Your task to perform on an android device: check data usage Image 0: 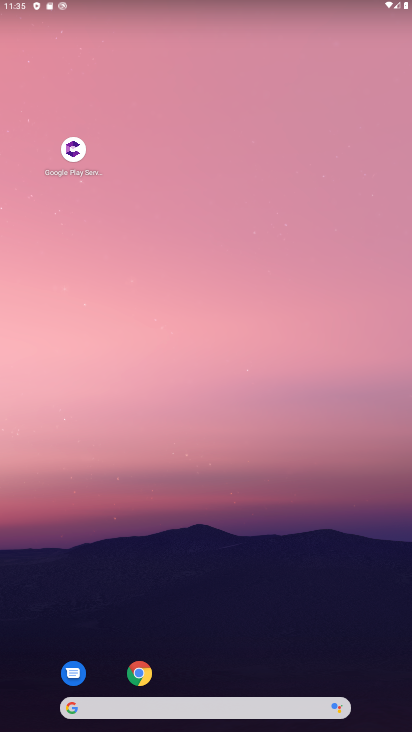
Step 0: drag from (277, 495) to (315, 229)
Your task to perform on an android device: check data usage Image 1: 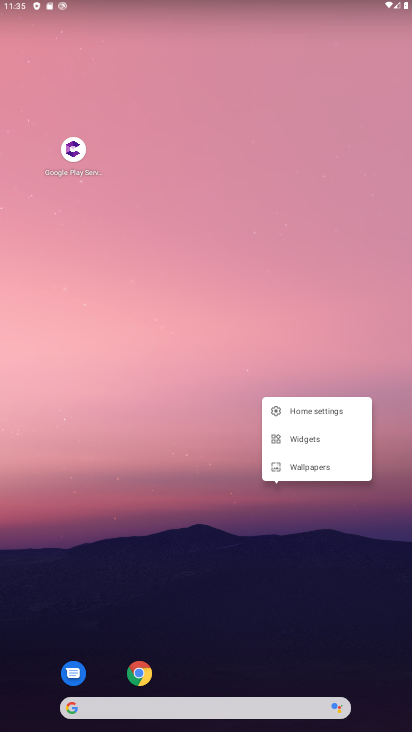
Step 1: click (167, 435)
Your task to perform on an android device: check data usage Image 2: 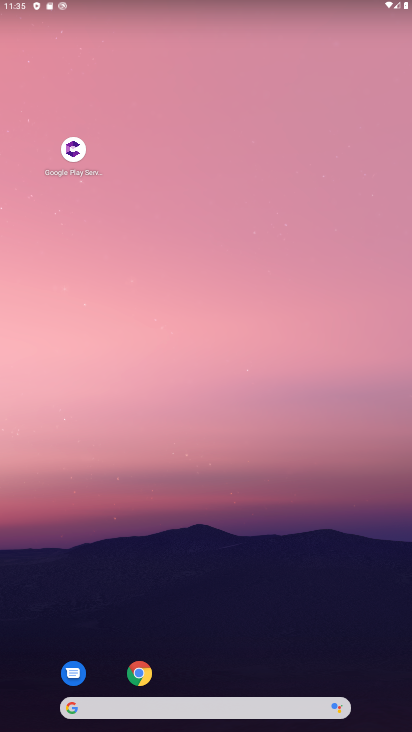
Step 2: drag from (167, 435) to (198, 84)
Your task to perform on an android device: check data usage Image 3: 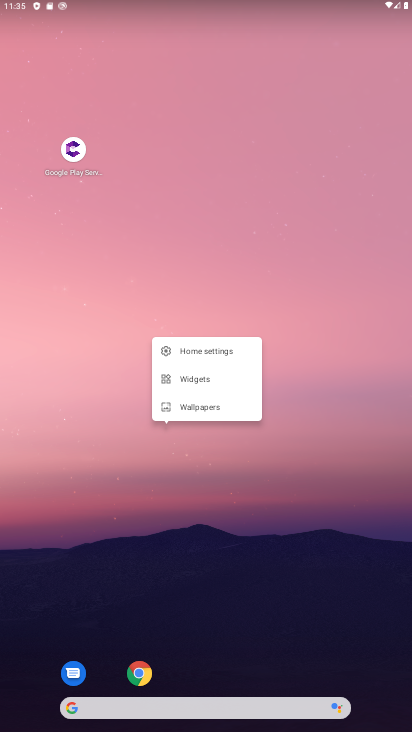
Step 3: click (275, 585)
Your task to perform on an android device: check data usage Image 4: 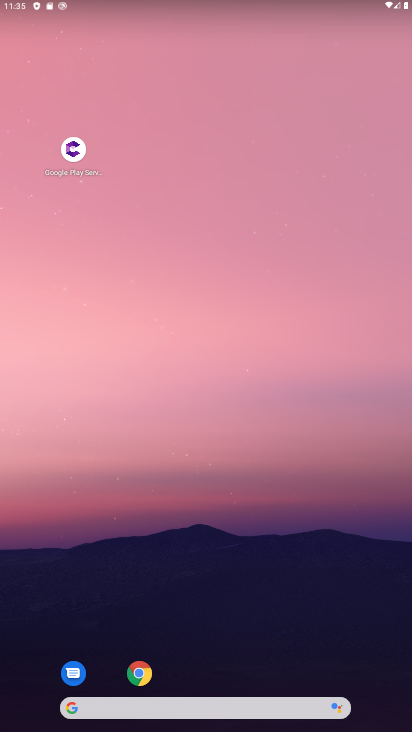
Step 4: click (272, 518)
Your task to perform on an android device: check data usage Image 5: 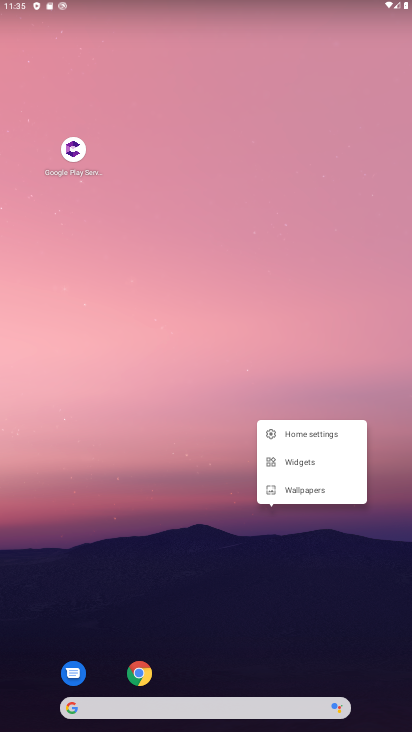
Step 5: click (243, 538)
Your task to perform on an android device: check data usage Image 6: 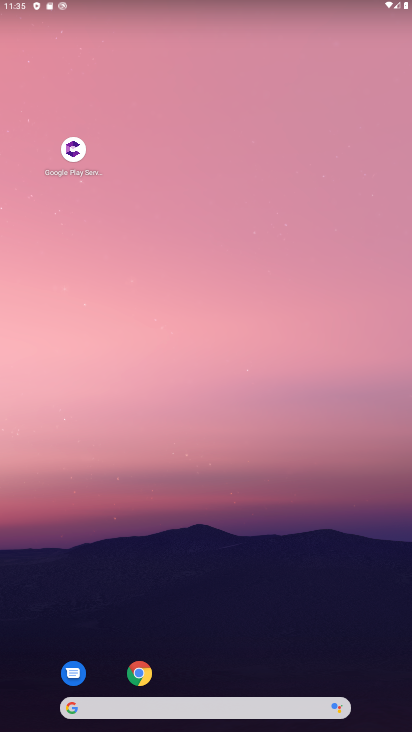
Step 6: drag from (243, 537) to (203, 38)
Your task to perform on an android device: check data usage Image 7: 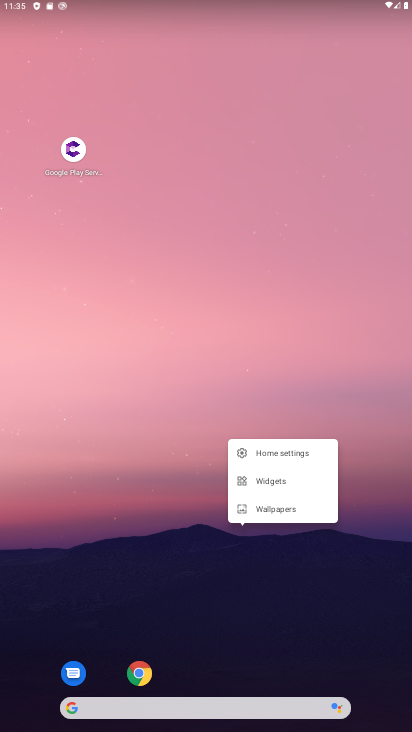
Step 7: click (201, 242)
Your task to perform on an android device: check data usage Image 8: 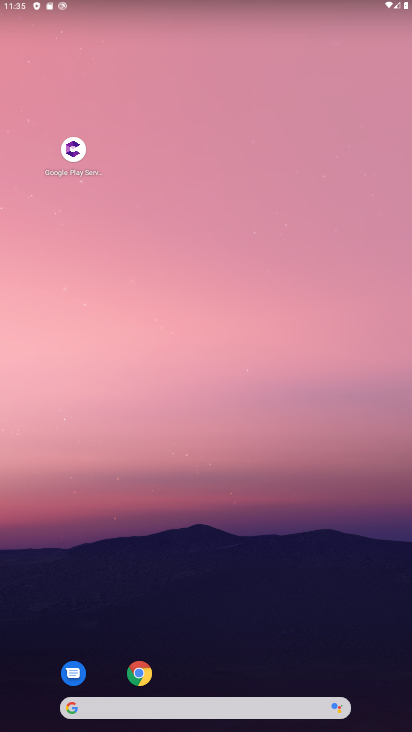
Step 8: drag from (209, 477) to (183, 11)
Your task to perform on an android device: check data usage Image 9: 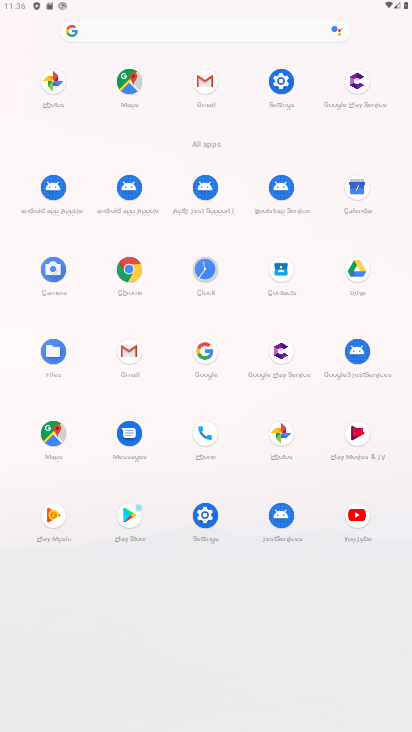
Step 9: click (207, 522)
Your task to perform on an android device: check data usage Image 10: 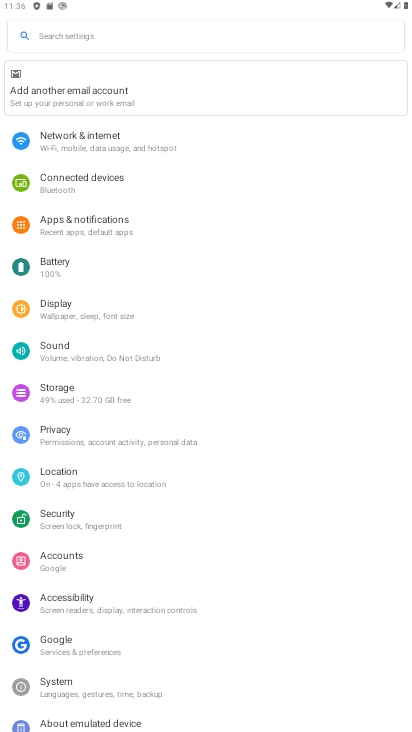
Step 10: click (107, 146)
Your task to perform on an android device: check data usage Image 11: 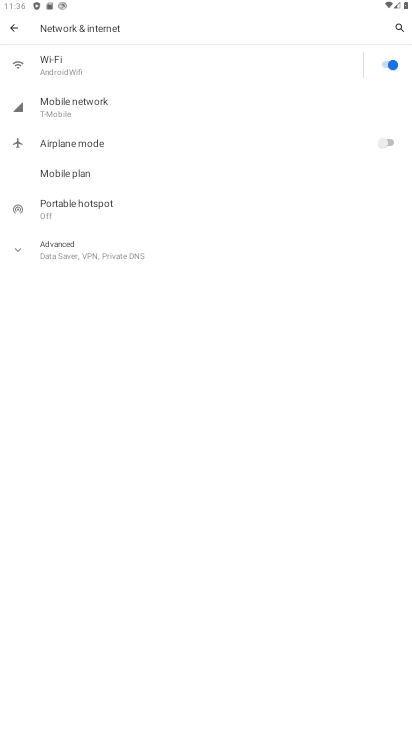
Step 11: click (81, 103)
Your task to perform on an android device: check data usage Image 12: 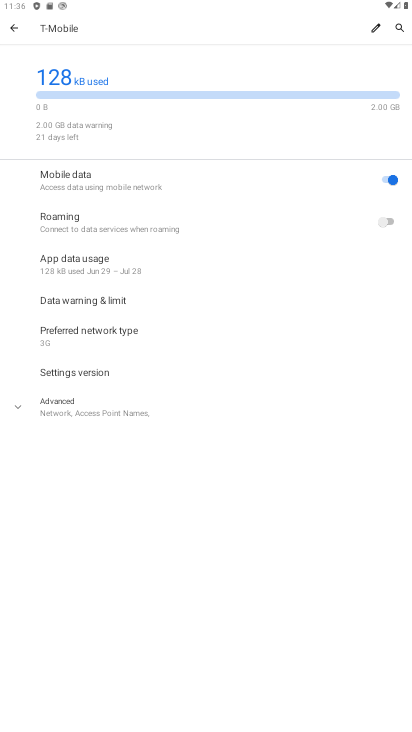
Step 12: click (73, 265)
Your task to perform on an android device: check data usage Image 13: 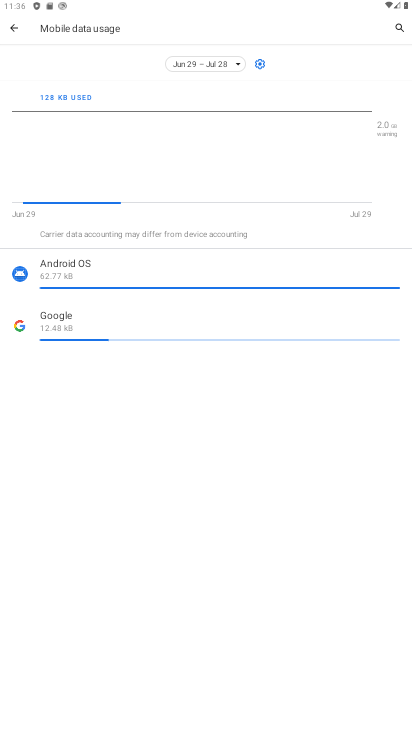
Step 13: task complete